Your task to perform on an android device: toggle show notifications on the lock screen Image 0: 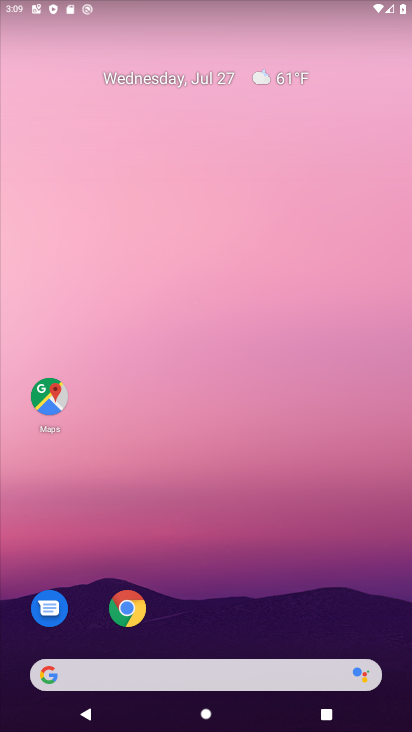
Step 0: drag from (277, 620) to (257, 43)
Your task to perform on an android device: toggle show notifications on the lock screen Image 1: 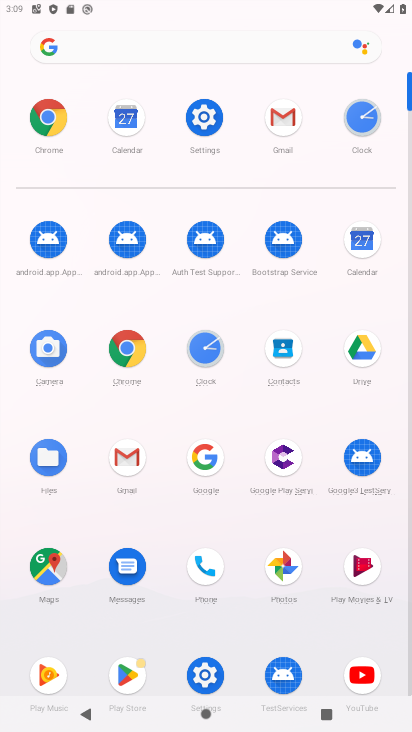
Step 1: click (207, 108)
Your task to perform on an android device: toggle show notifications on the lock screen Image 2: 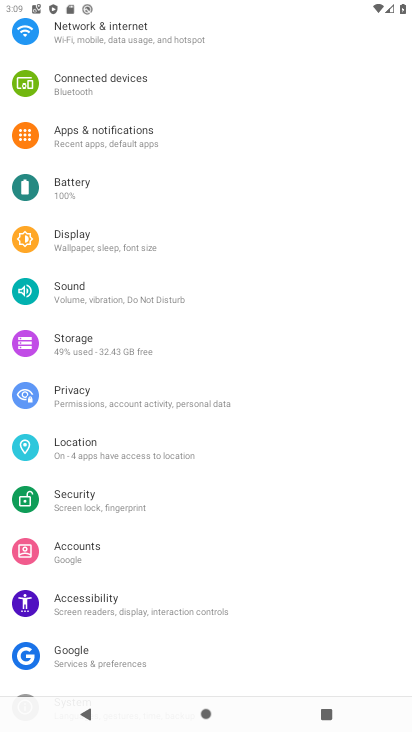
Step 2: click (125, 133)
Your task to perform on an android device: toggle show notifications on the lock screen Image 3: 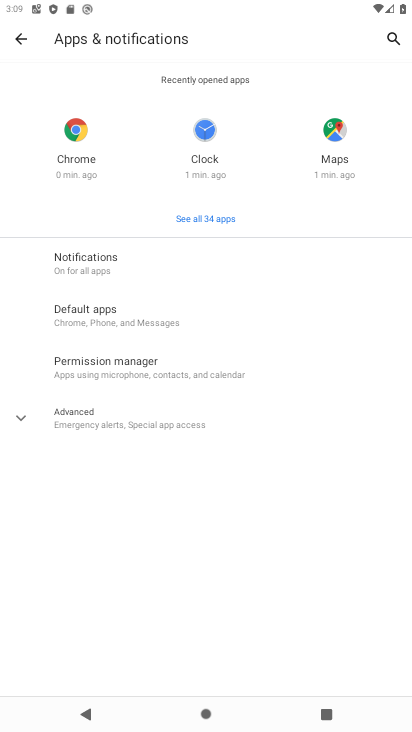
Step 3: click (104, 269)
Your task to perform on an android device: toggle show notifications on the lock screen Image 4: 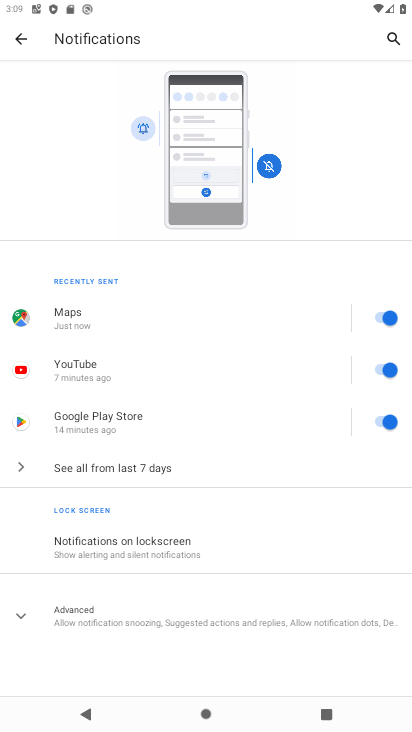
Step 4: click (95, 533)
Your task to perform on an android device: toggle show notifications on the lock screen Image 5: 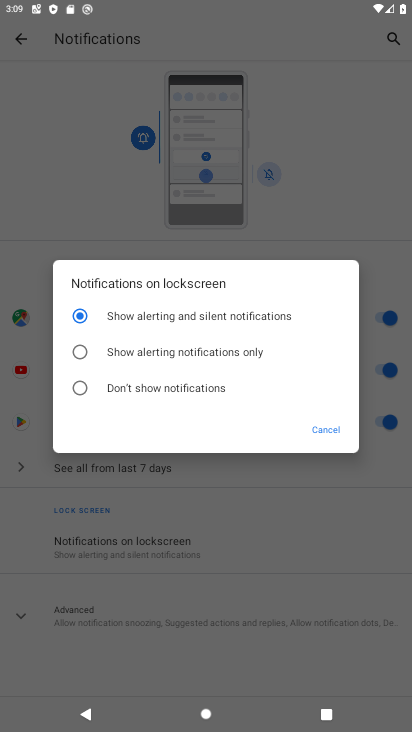
Step 5: click (134, 350)
Your task to perform on an android device: toggle show notifications on the lock screen Image 6: 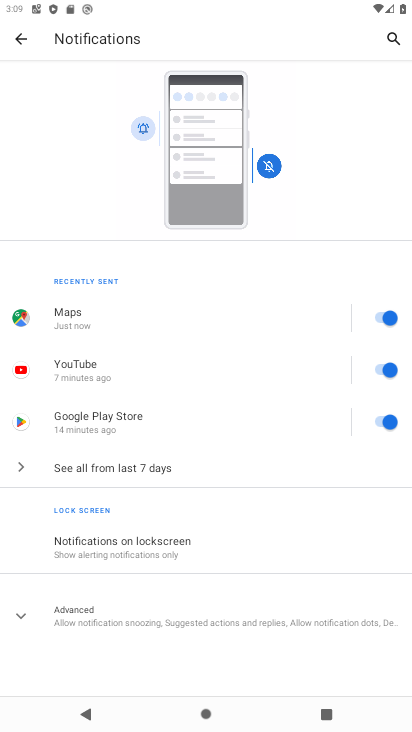
Step 6: task complete